Your task to perform on an android device: Go to Reddit.com Image 0: 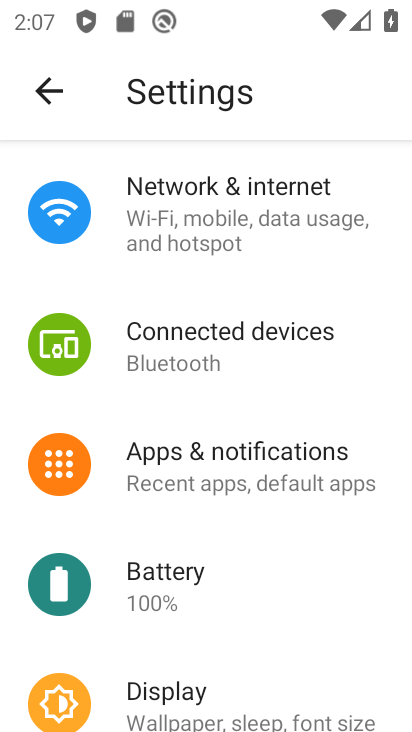
Step 0: press home button
Your task to perform on an android device: Go to Reddit.com Image 1: 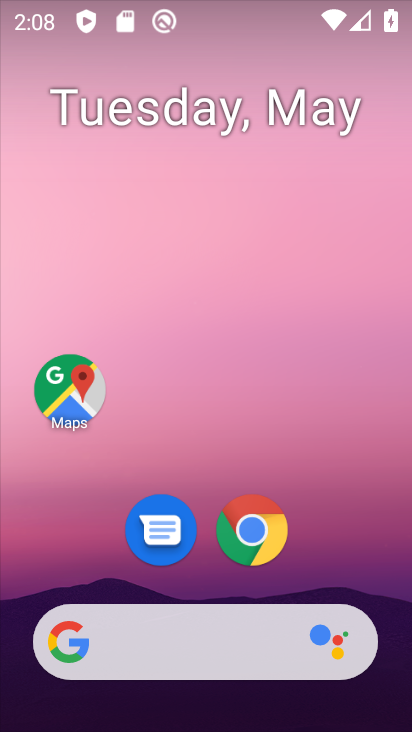
Step 1: click (247, 537)
Your task to perform on an android device: Go to Reddit.com Image 2: 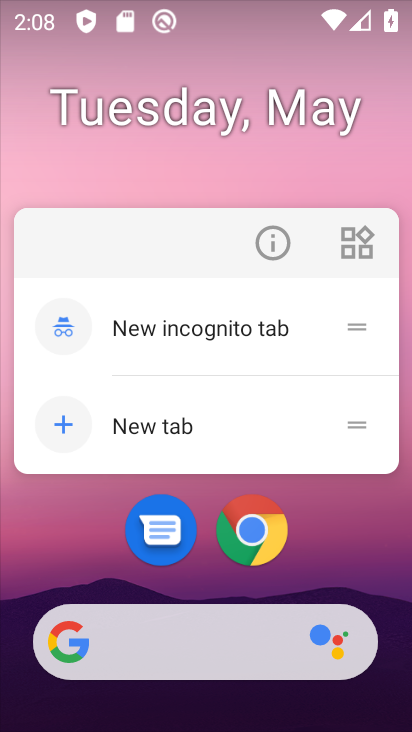
Step 2: click (247, 535)
Your task to perform on an android device: Go to Reddit.com Image 3: 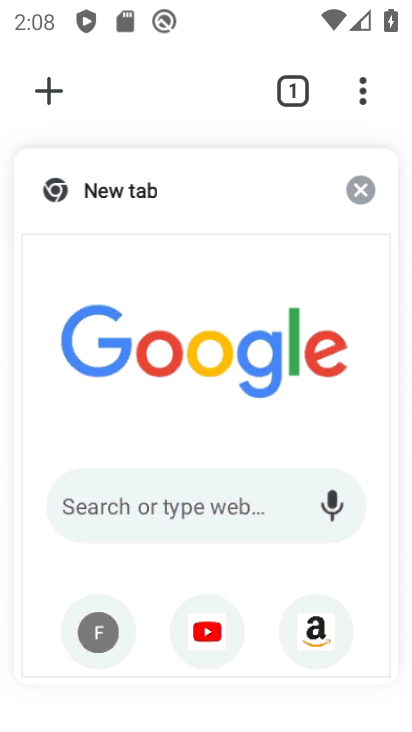
Step 3: click (182, 311)
Your task to perform on an android device: Go to Reddit.com Image 4: 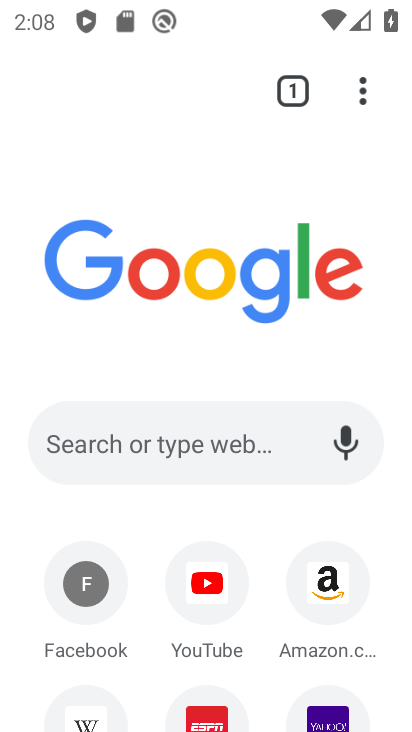
Step 4: click (194, 452)
Your task to perform on an android device: Go to Reddit.com Image 5: 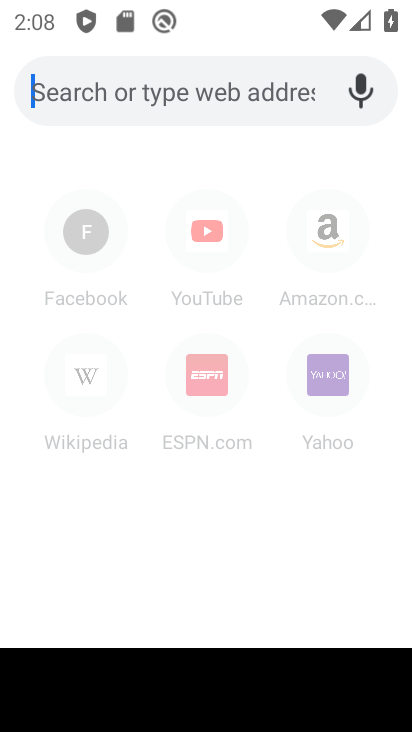
Step 5: type "reddit"
Your task to perform on an android device: Go to Reddit.com Image 6: 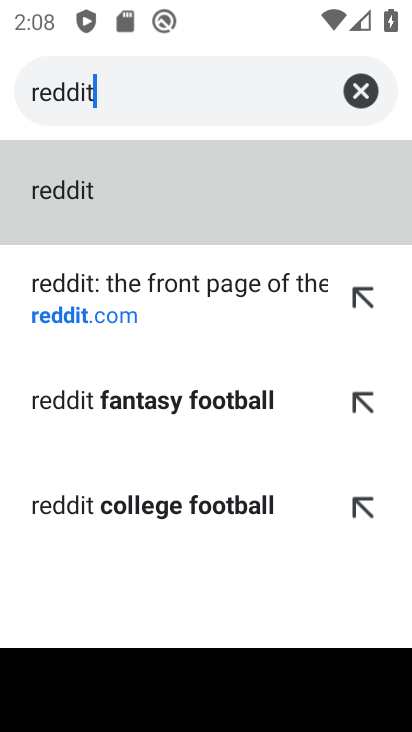
Step 6: type ""
Your task to perform on an android device: Go to Reddit.com Image 7: 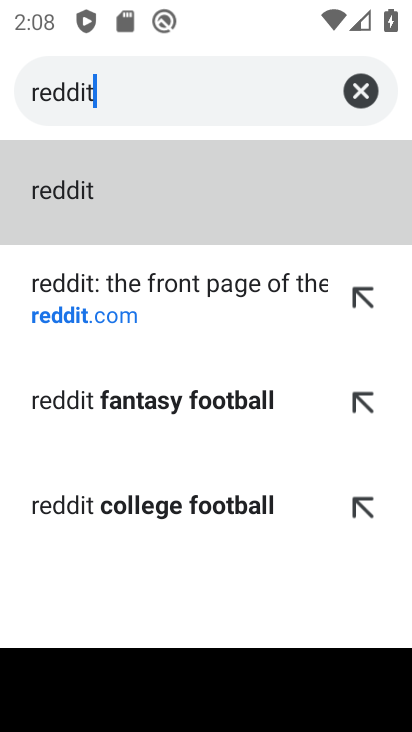
Step 7: click (269, 316)
Your task to perform on an android device: Go to Reddit.com Image 8: 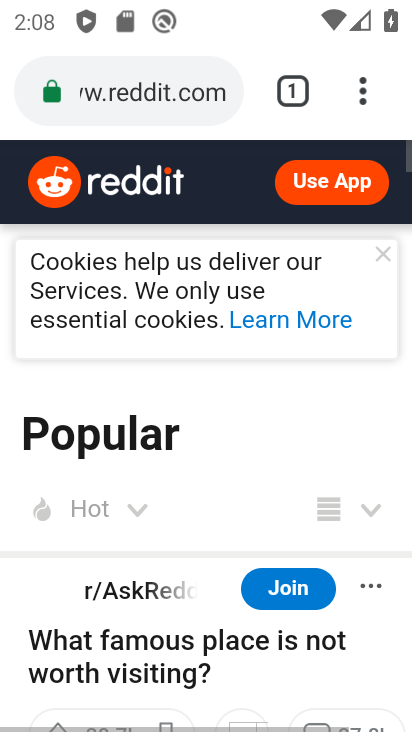
Step 8: task complete